Your task to perform on an android device: turn pop-ups on in chrome Image 0: 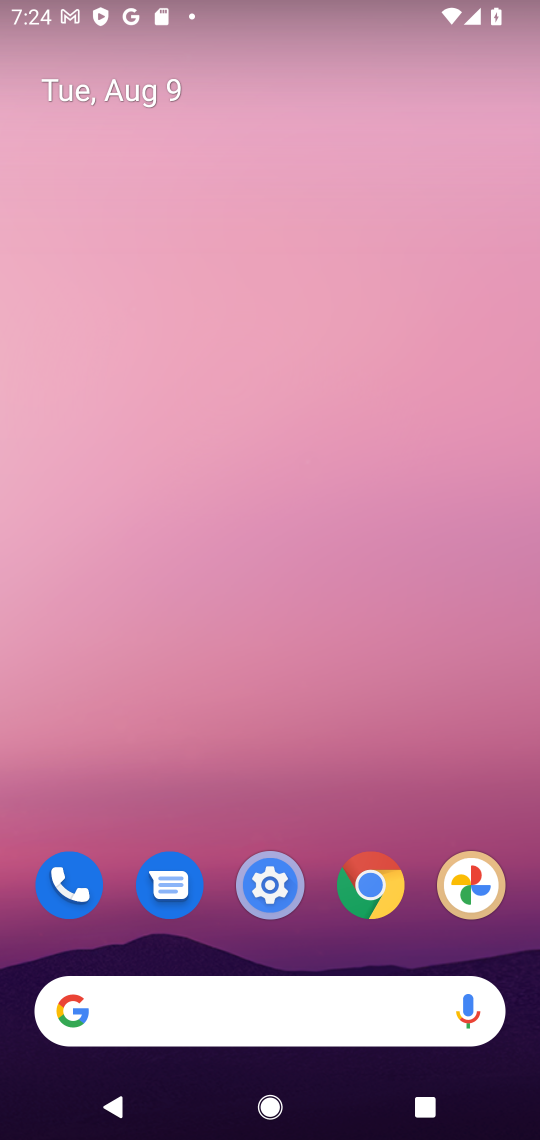
Step 0: drag from (326, 627) to (264, 241)
Your task to perform on an android device: turn pop-ups on in chrome Image 1: 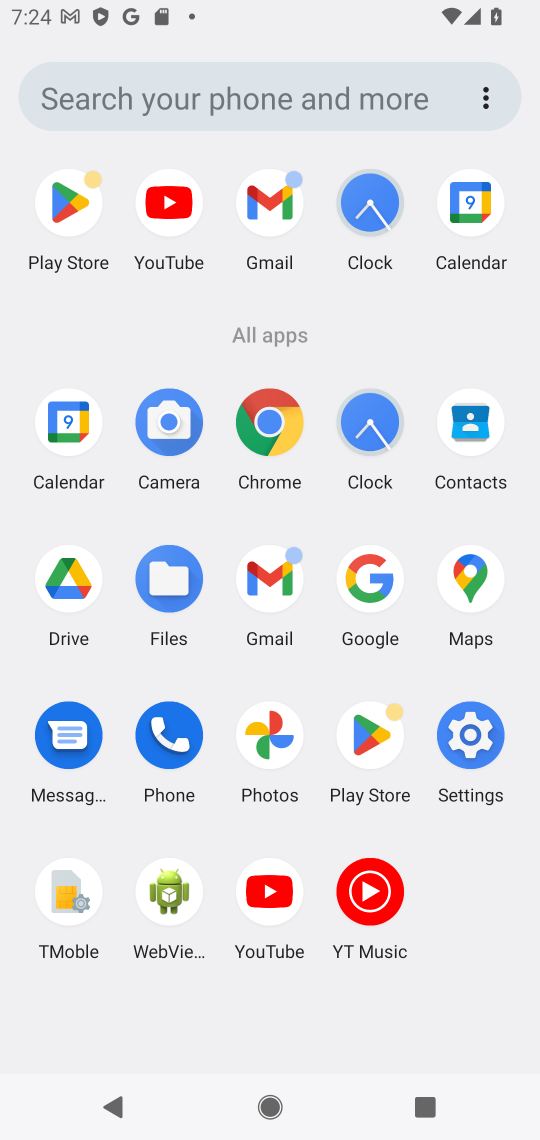
Step 1: click (373, 880)
Your task to perform on an android device: turn pop-ups on in chrome Image 2: 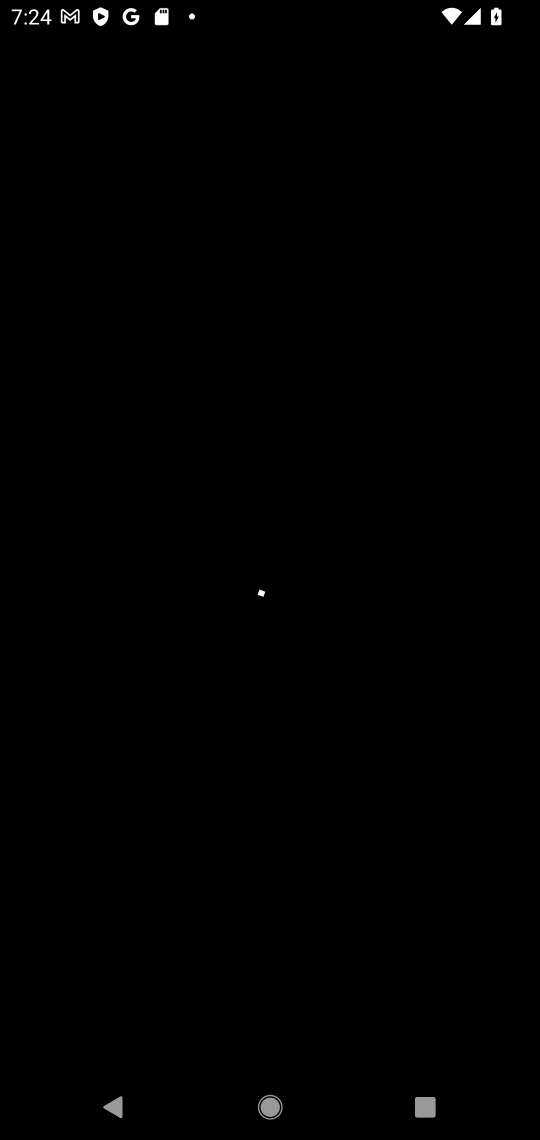
Step 2: press home button
Your task to perform on an android device: turn pop-ups on in chrome Image 3: 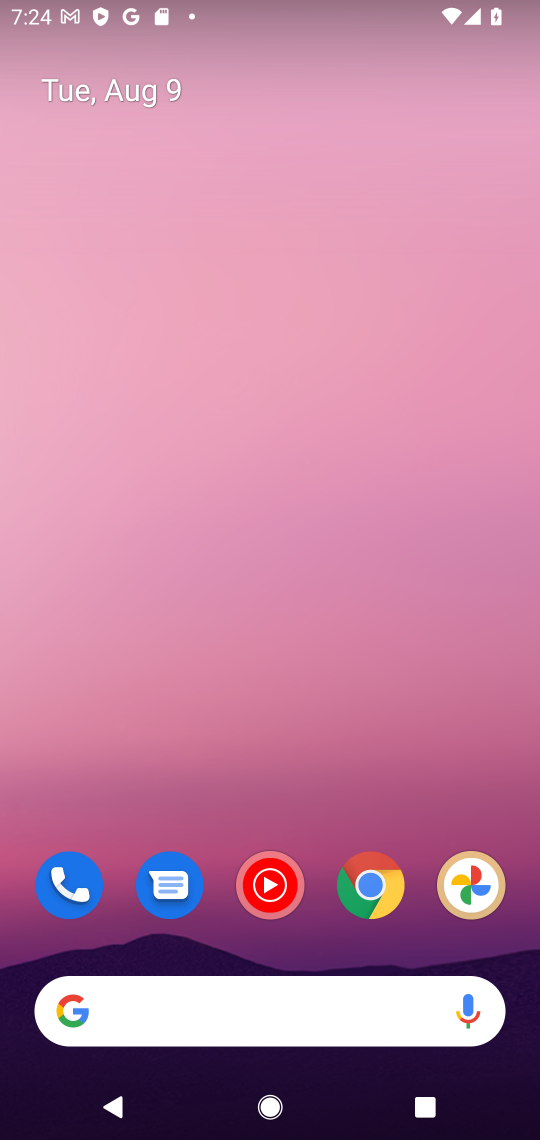
Step 3: click (383, 854)
Your task to perform on an android device: turn pop-ups on in chrome Image 4: 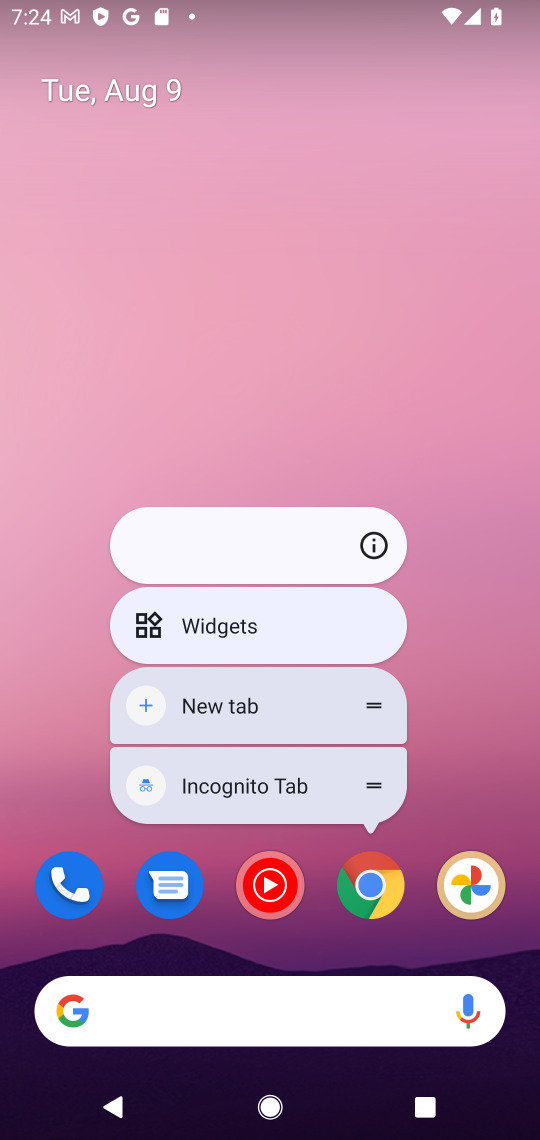
Step 4: click (357, 881)
Your task to perform on an android device: turn pop-ups on in chrome Image 5: 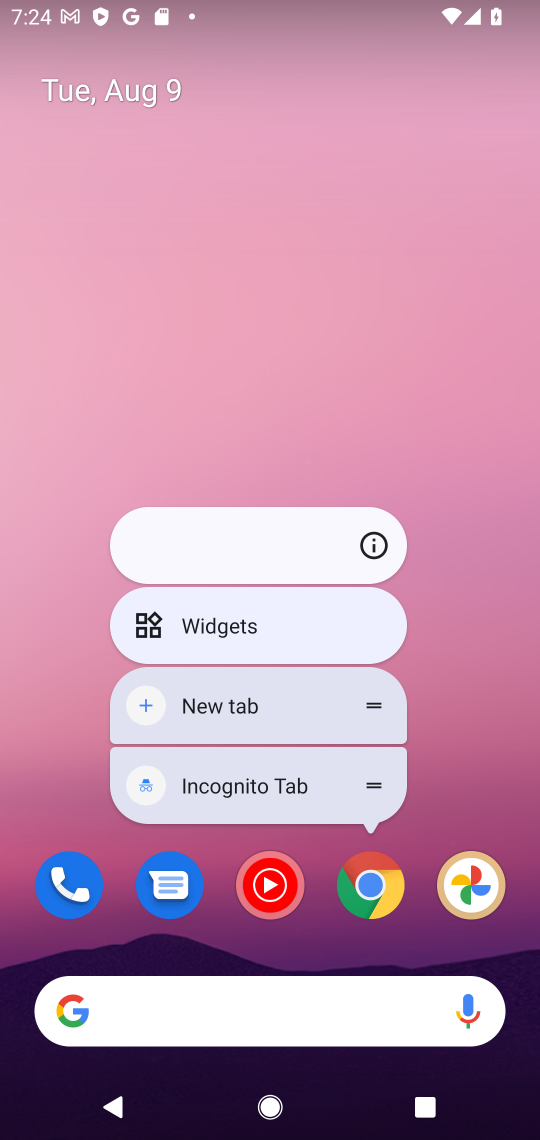
Step 5: click (396, 895)
Your task to perform on an android device: turn pop-ups on in chrome Image 6: 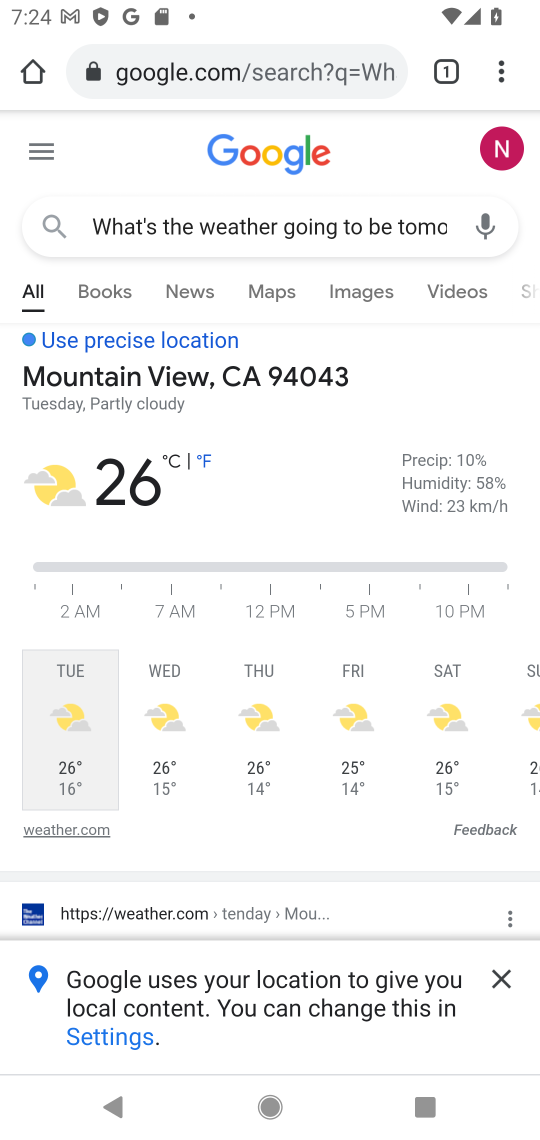
Step 6: task complete